Your task to perform on an android device: Open Google Chrome Image 0: 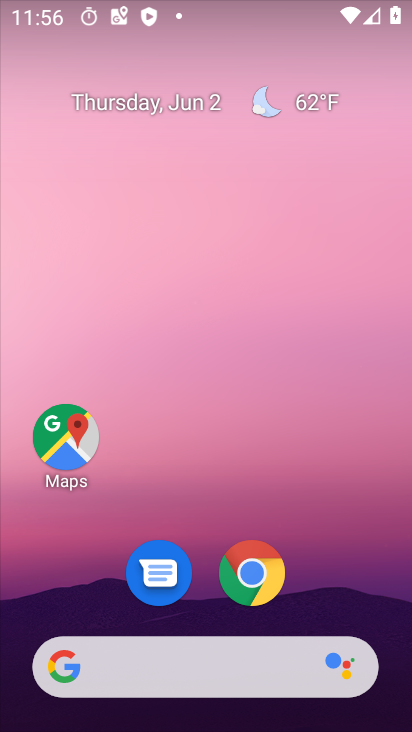
Step 0: drag from (312, 666) to (400, 56)
Your task to perform on an android device: Open Google Chrome Image 1: 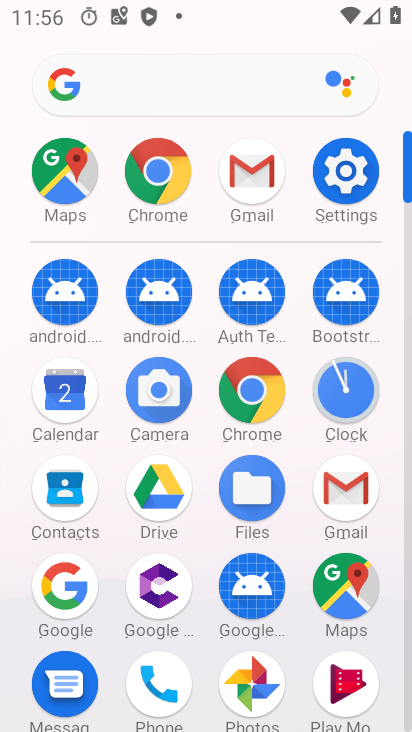
Step 1: click (284, 397)
Your task to perform on an android device: Open Google Chrome Image 2: 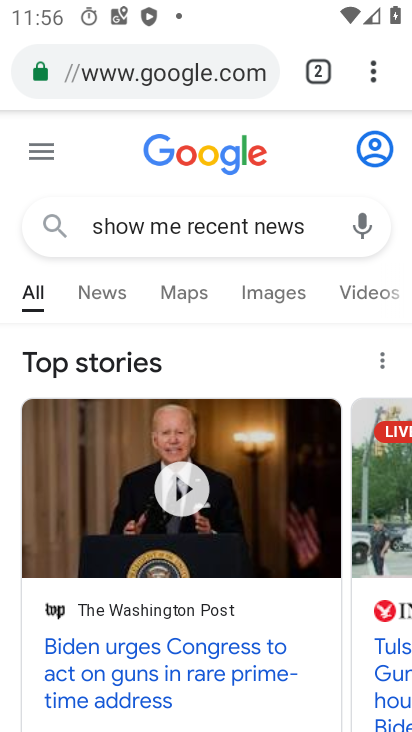
Step 2: task complete